Your task to perform on an android device: Check the weather Image 0: 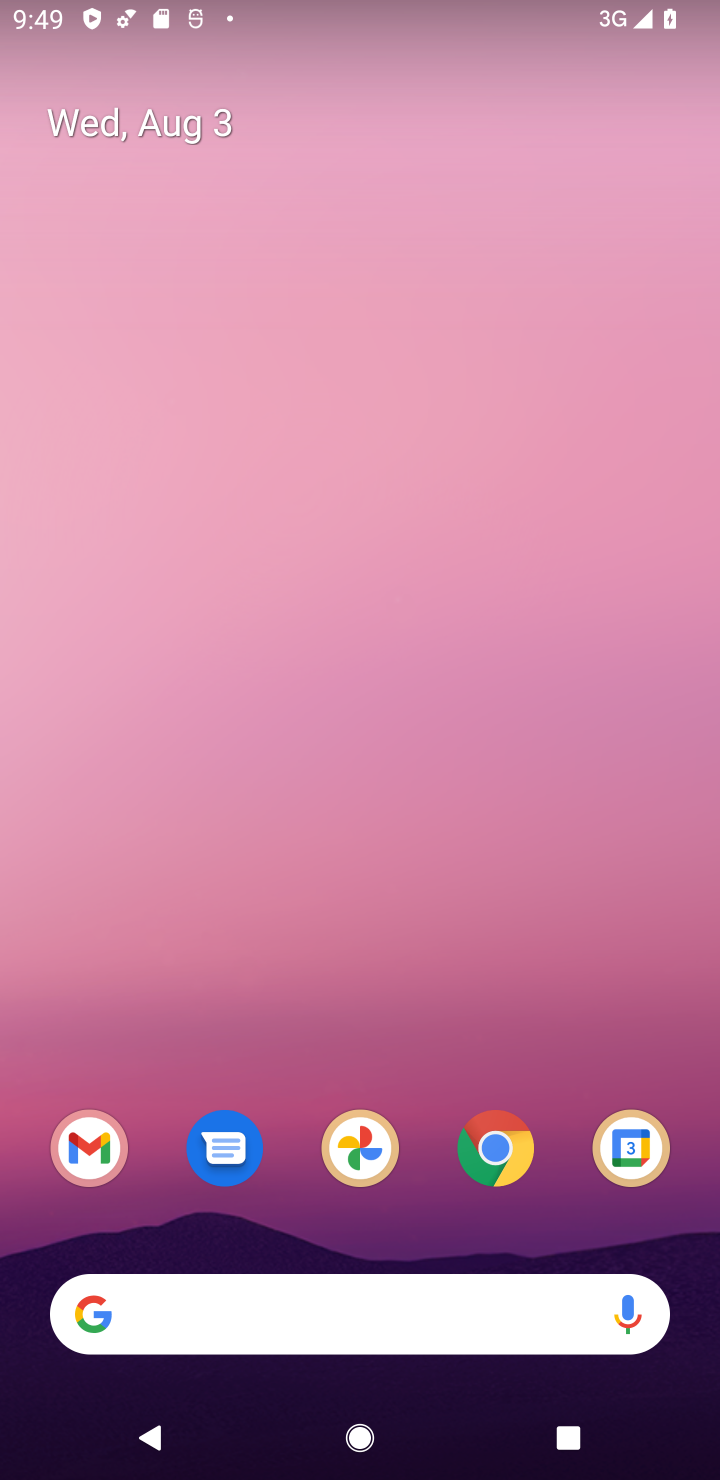
Step 0: click (395, 1316)
Your task to perform on an android device: Check the weather Image 1: 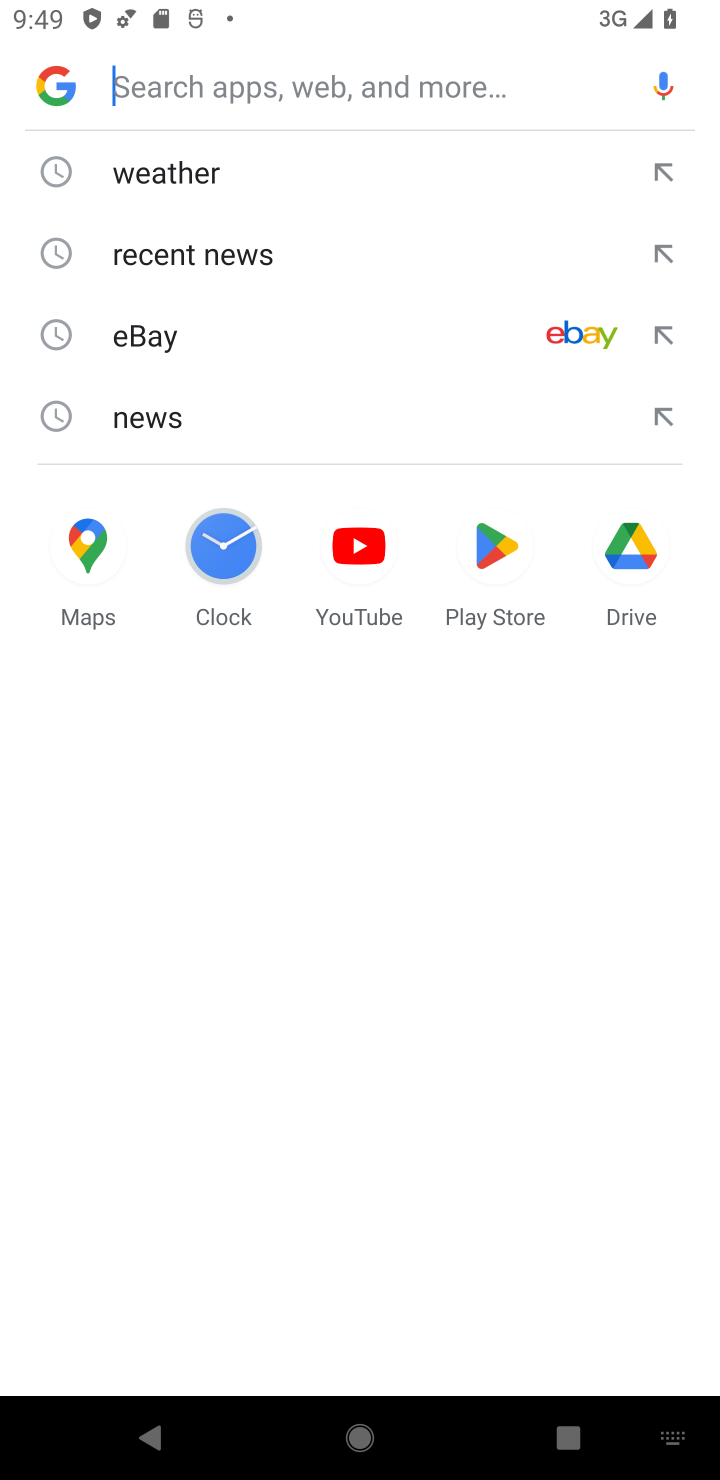
Step 1: press enter
Your task to perform on an android device: Check the weather Image 2: 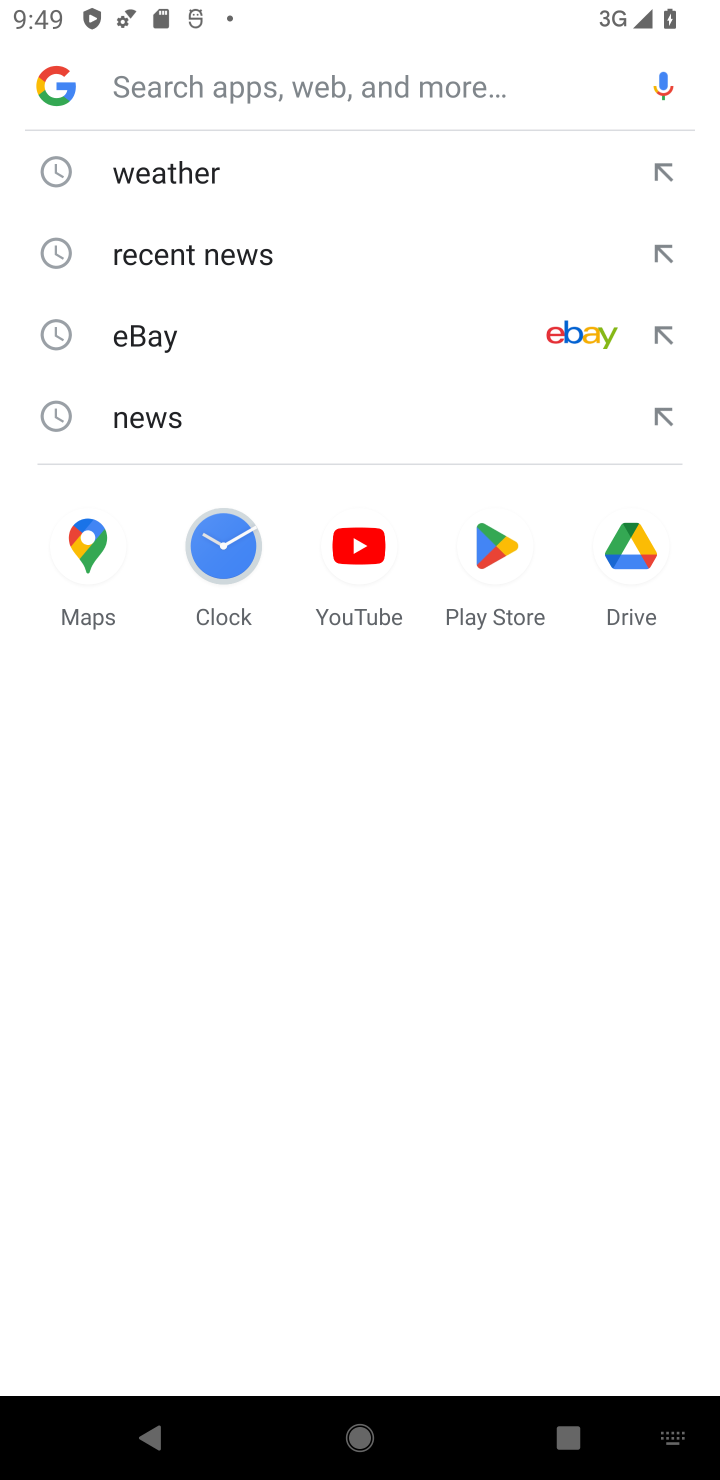
Step 2: type "Check the weather"
Your task to perform on an android device: Check the weather Image 3: 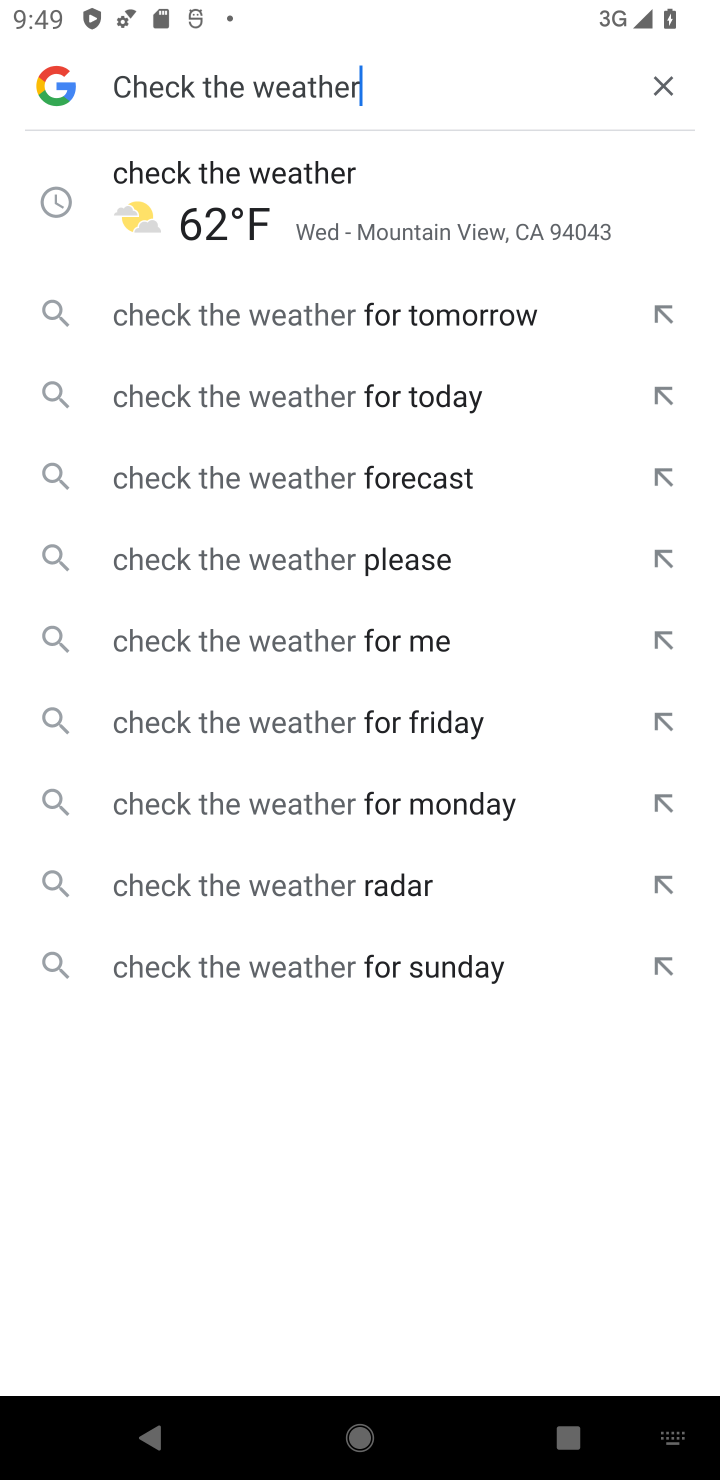
Step 3: task complete